Your task to perform on an android device: Open Youtube and go to the subscriptions tab Image 0: 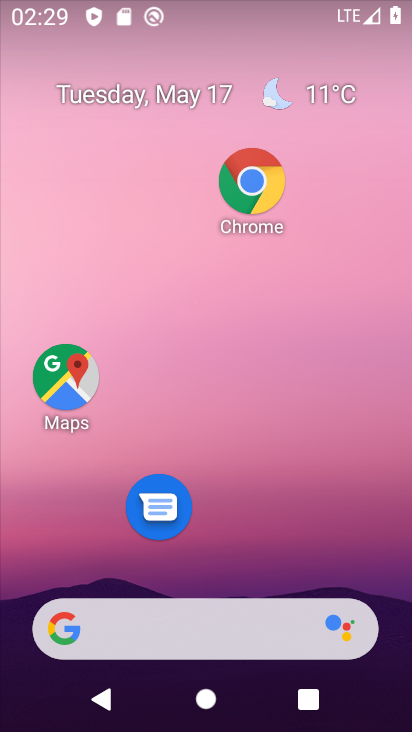
Step 0: drag from (185, 580) to (374, 5)
Your task to perform on an android device: Open Youtube and go to the subscriptions tab Image 1: 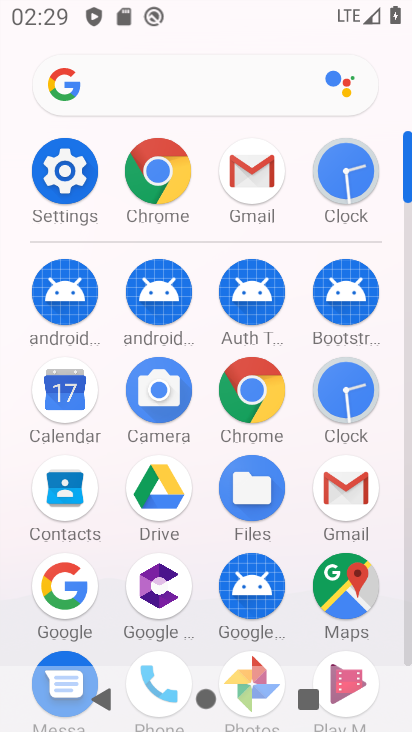
Step 1: drag from (302, 572) to (291, 129)
Your task to perform on an android device: Open Youtube and go to the subscriptions tab Image 2: 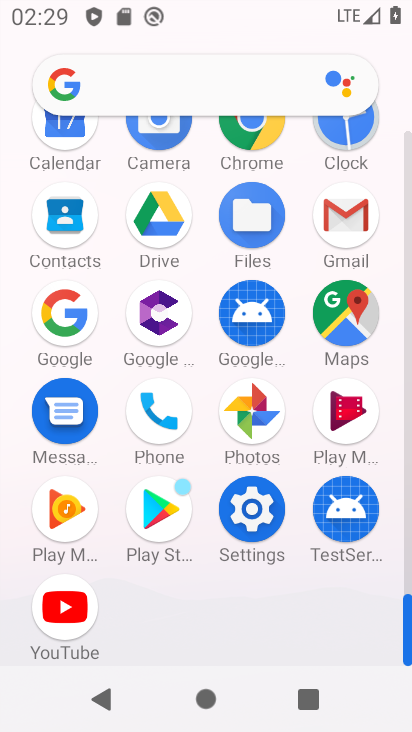
Step 2: click (57, 603)
Your task to perform on an android device: Open Youtube and go to the subscriptions tab Image 3: 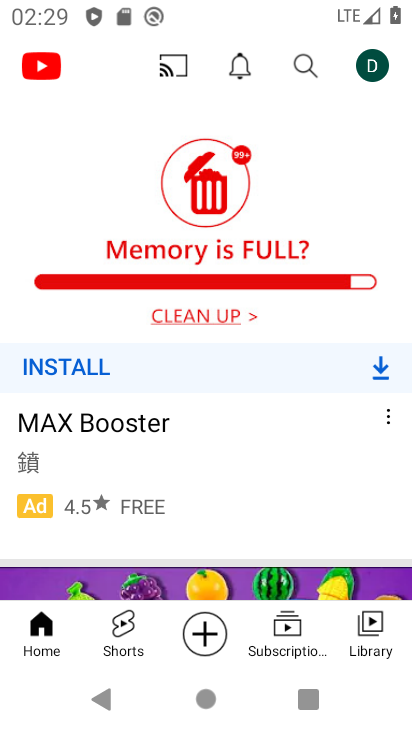
Step 3: click (290, 623)
Your task to perform on an android device: Open Youtube and go to the subscriptions tab Image 4: 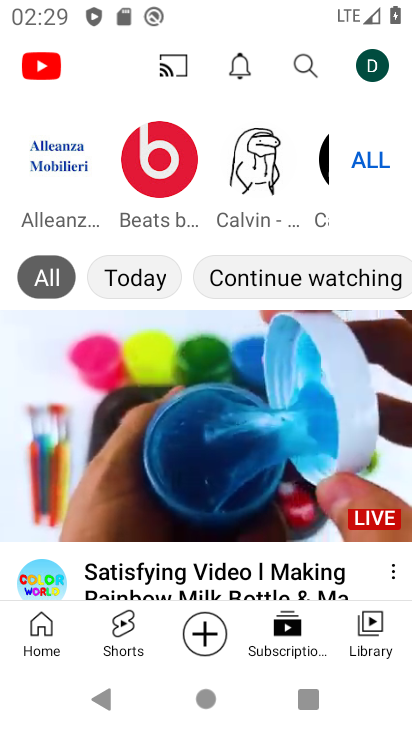
Step 4: task complete